Your task to perform on an android device: Go to internet settings Image 0: 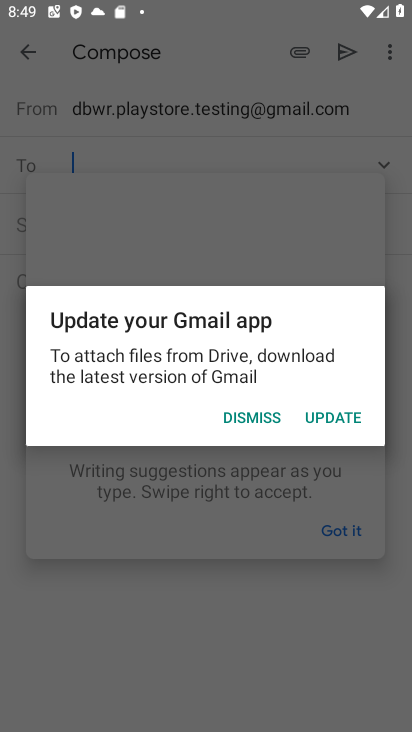
Step 0: press home button
Your task to perform on an android device: Go to internet settings Image 1: 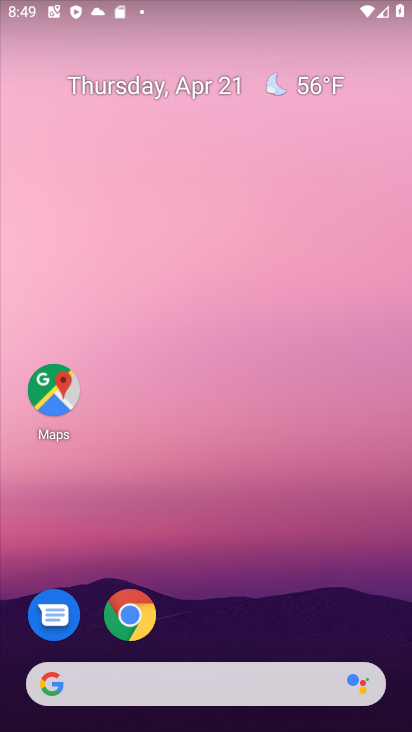
Step 1: drag from (251, 580) to (260, 0)
Your task to perform on an android device: Go to internet settings Image 2: 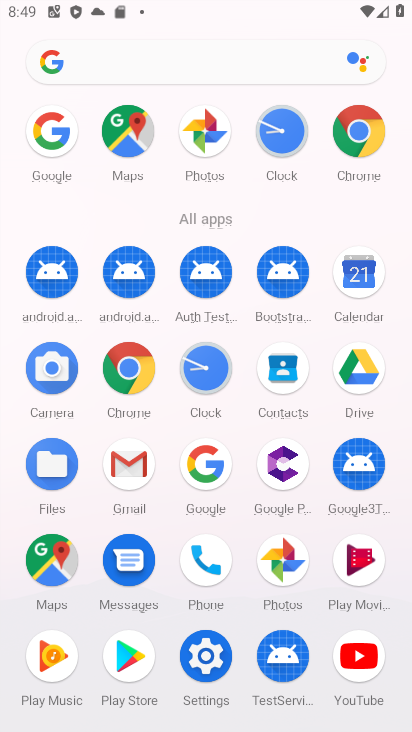
Step 2: click (206, 658)
Your task to perform on an android device: Go to internet settings Image 3: 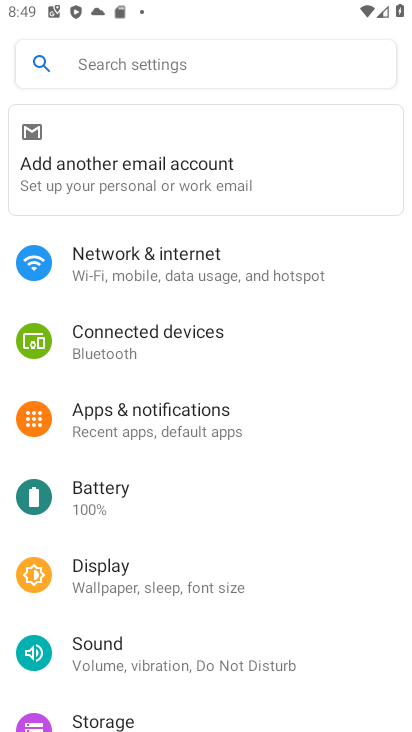
Step 3: click (156, 269)
Your task to perform on an android device: Go to internet settings Image 4: 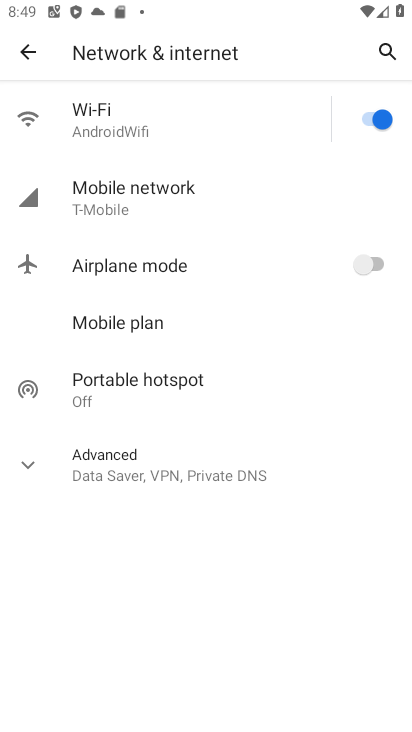
Step 4: click (139, 124)
Your task to perform on an android device: Go to internet settings Image 5: 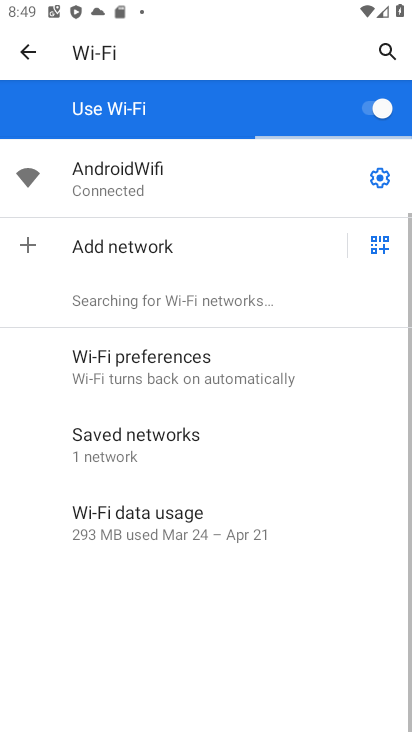
Step 5: click (379, 180)
Your task to perform on an android device: Go to internet settings Image 6: 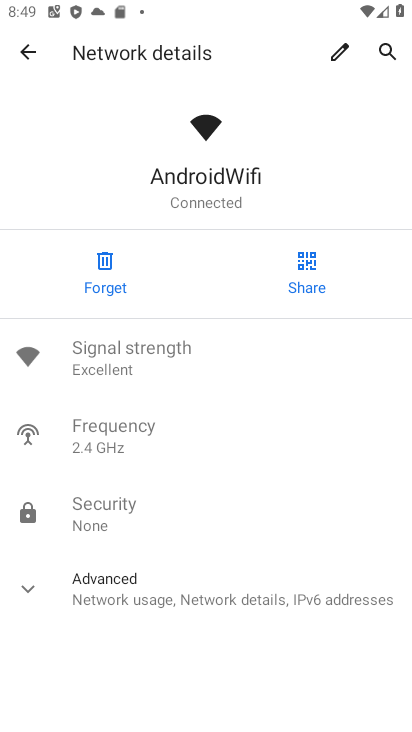
Step 6: task complete